Your task to perform on an android device: open a new tab in the chrome app Image 0: 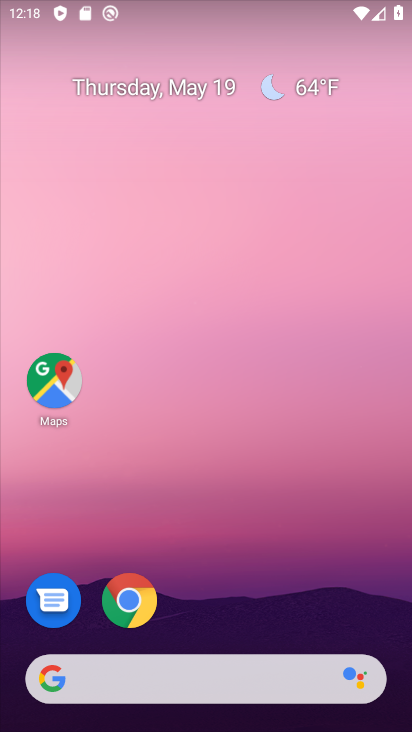
Step 0: drag from (226, 643) to (224, 56)
Your task to perform on an android device: open a new tab in the chrome app Image 1: 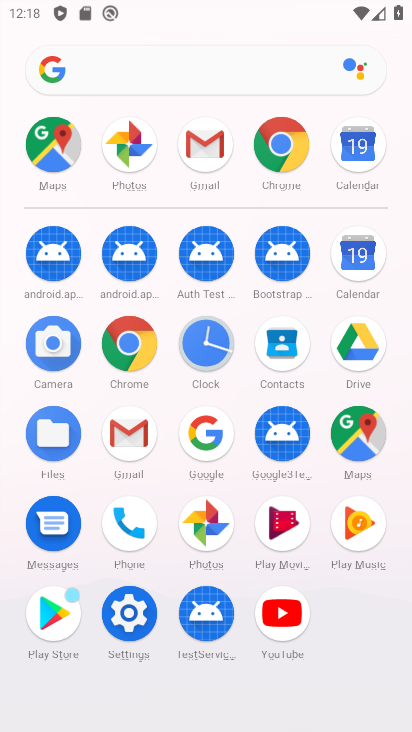
Step 1: click (275, 145)
Your task to perform on an android device: open a new tab in the chrome app Image 2: 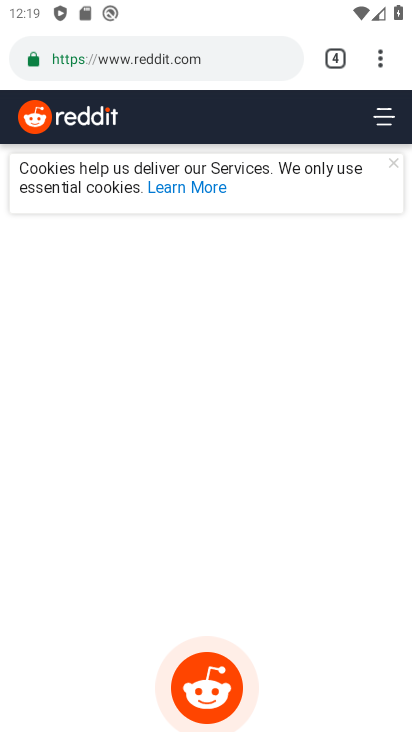
Step 2: click (325, 58)
Your task to perform on an android device: open a new tab in the chrome app Image 3: 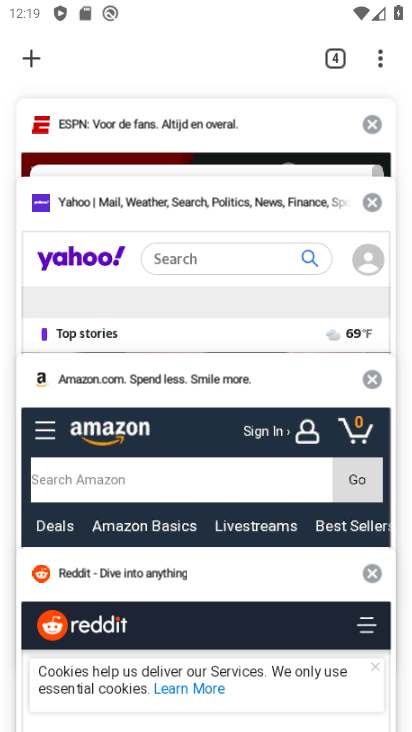
Step 3: click (25, 54)
Your task to perform on an android device: open a new tab in the chrome app Image 4: 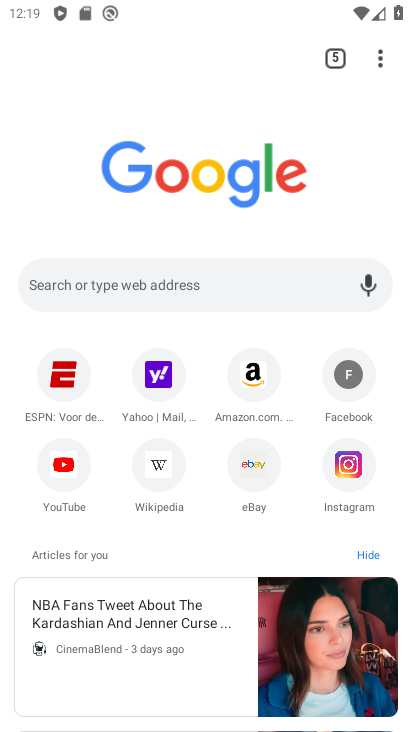
Step 4: task complete